Your task to perform on an android device: uninstall "Upside-Cash back on gas & food" Image 0: 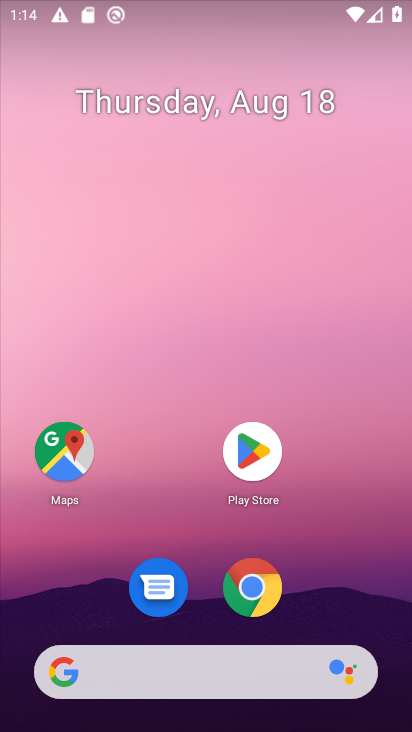
Step 0: click (246, 449)
Your task to perform on an android device: uninstall "Upside-Cash back on gas & food" Image 1: 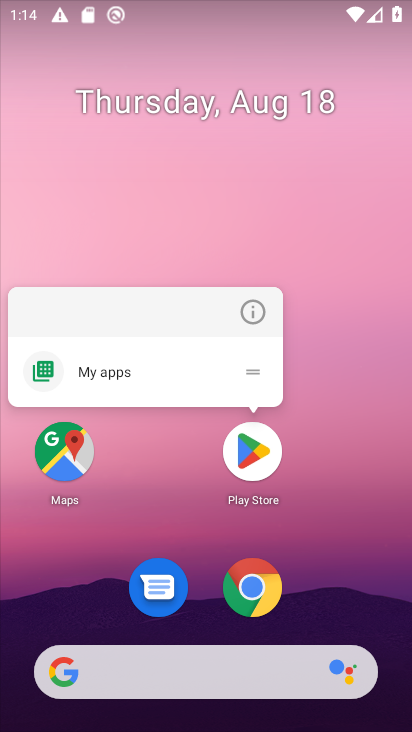
Step 1: click (252, 450)
Your task to perform on an android device: uninstall "Upside-Cash back on gas & food" Image 2: 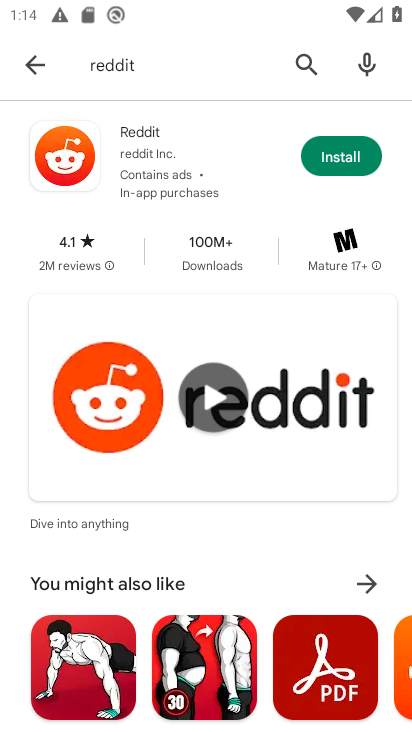
Step 2: click (310, 59)
Your task to perform on an android device: uninstall "Upside-Cash back on gas & food" Image 3: 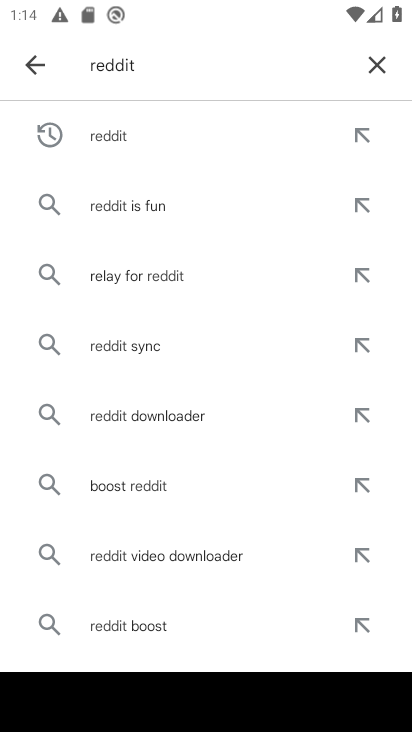
Step 3: click (370, 62)
Your task to perform on an android device: uninstall "Upside-Cash back on gas & food" Image 4: 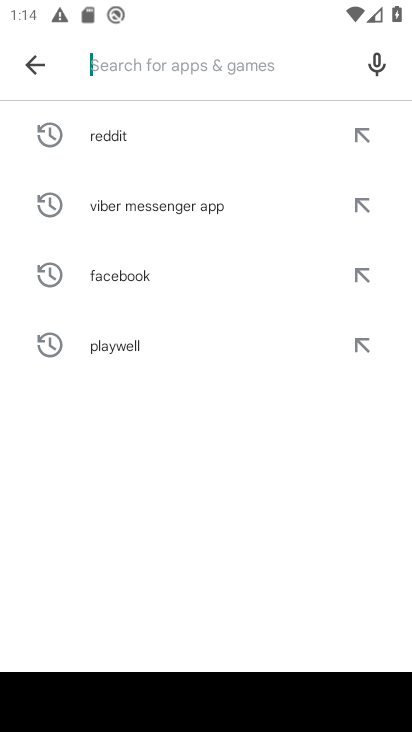
Step 4: type "Upside-Cash back on gas & food"
Your task to perform on an android device: uninstall "Upside-Cash back on gas & food" Image 5: 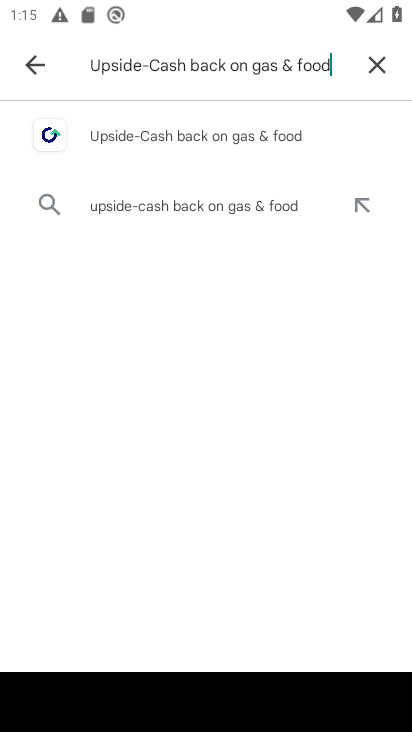
Step 5: click (165, 131)
Your task to perform on an android device: uninstall "Upside-Cash back on gas & food" Image 6: 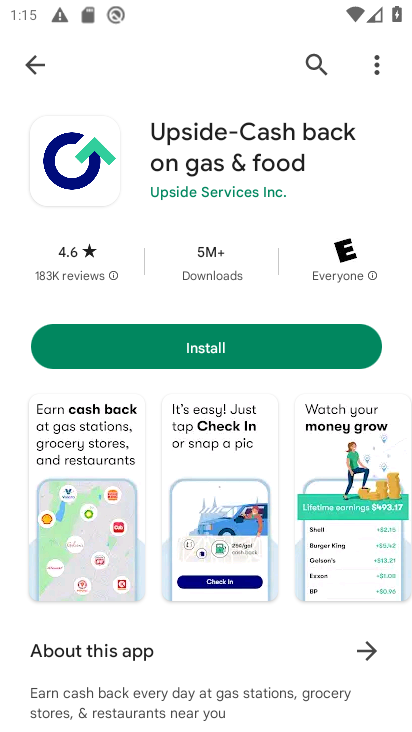
Step 6: task complete